Your task to perform on an android device: open app "Facebook Lite" (install if not already installed), go to login, and select forgot password Image 0: 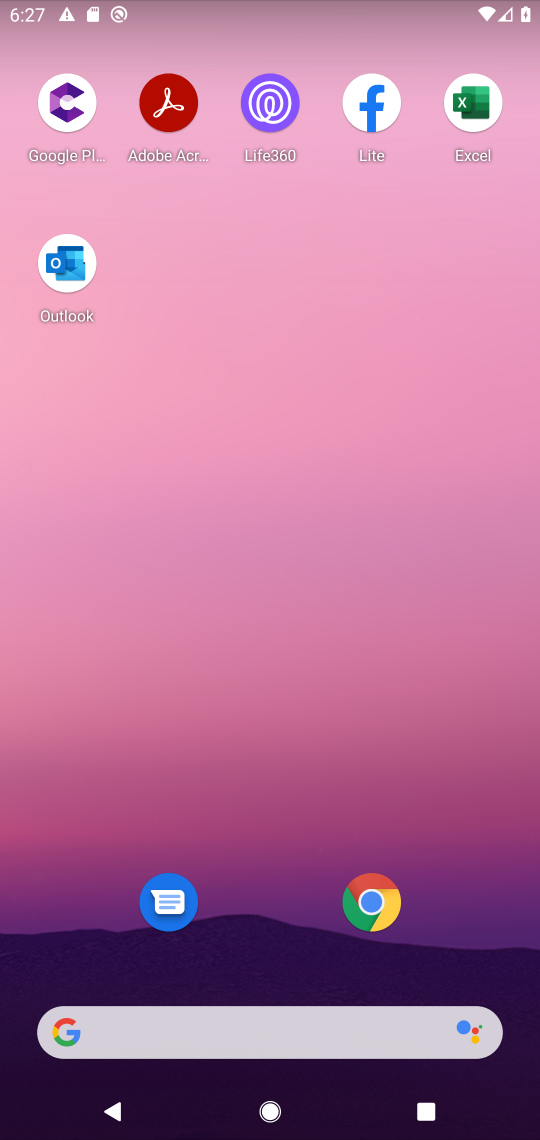
Step 0: click (247, 976)
Your task to perform on an android device: open app "Facebook Lite" (install if not already installed), go to login, and select forgot password Image 1: 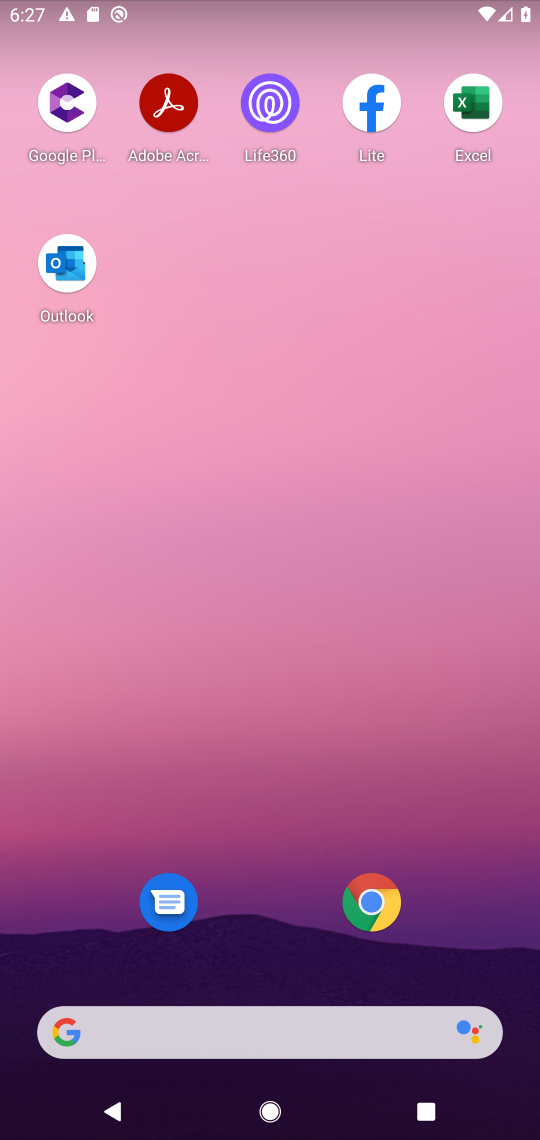
Step 1: drag from (244, 940) to (310, 29)
Your task to perform on an android device: open app "Facebook Lite" (install if not already installed), go to login, and select forgot password Image 2: 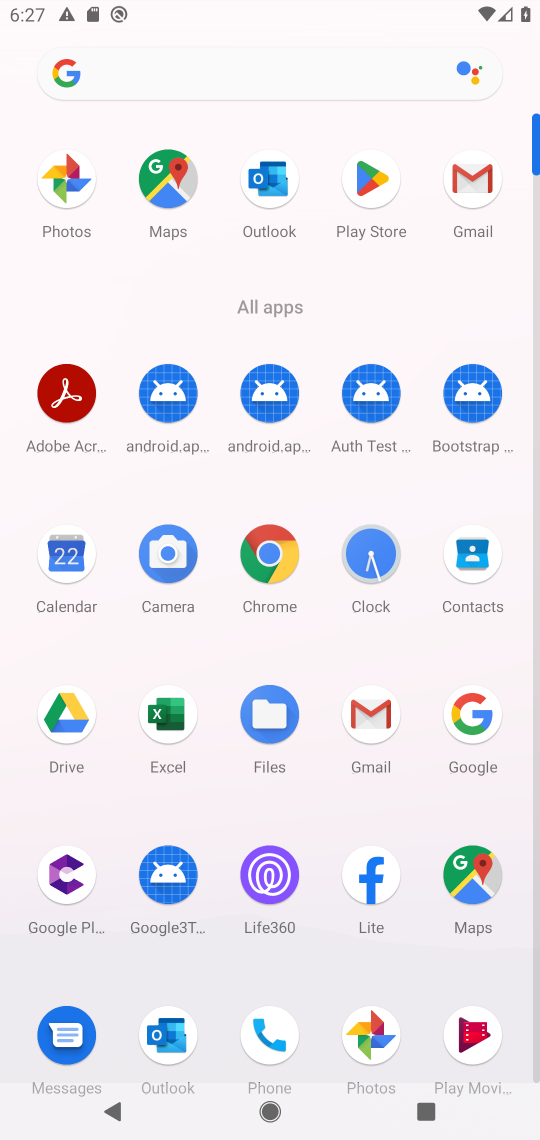
Step 2: click (378, 170)
Your task to perform on an android device: open app "Facebook Lite" (install if not already installed), go to login, and select forgot password Image 3: 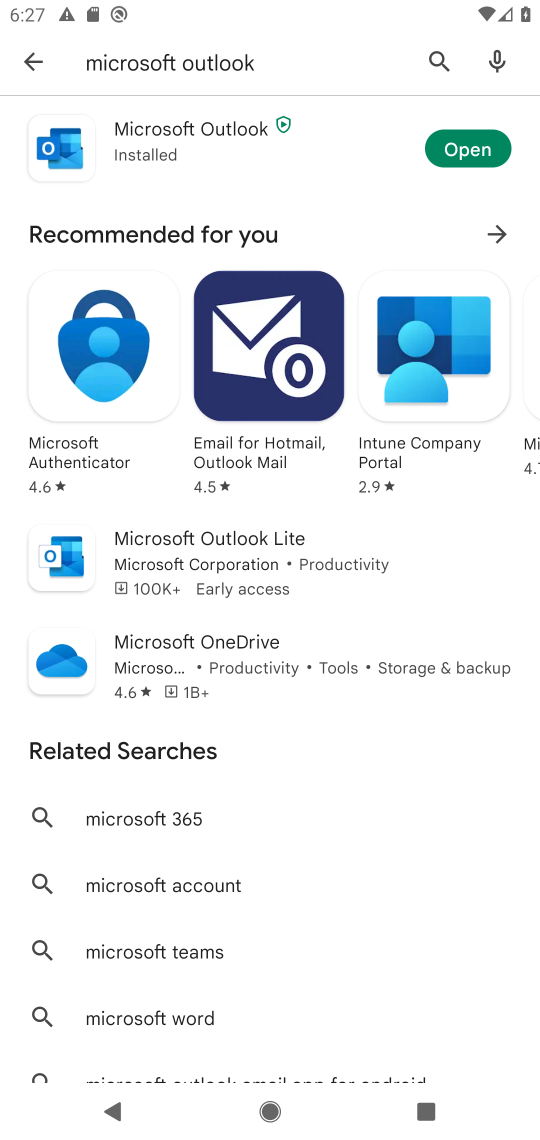
Step 3: click (34, 56)
Your task to perform on an android device: open app "Facebook Lite" (install if not already installed), go to login, and select forgot password Image 4: 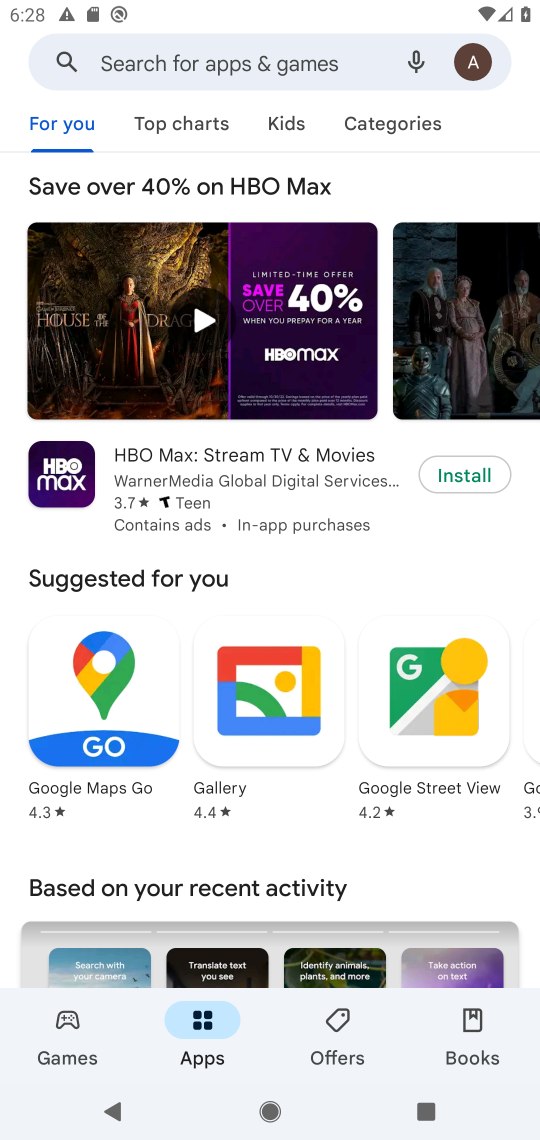
Step 4: click (222, 65)
Your task to perform on an android device: open app "Facebook Lite" (install if not already installed), go to login, and select forgot password Image 5: 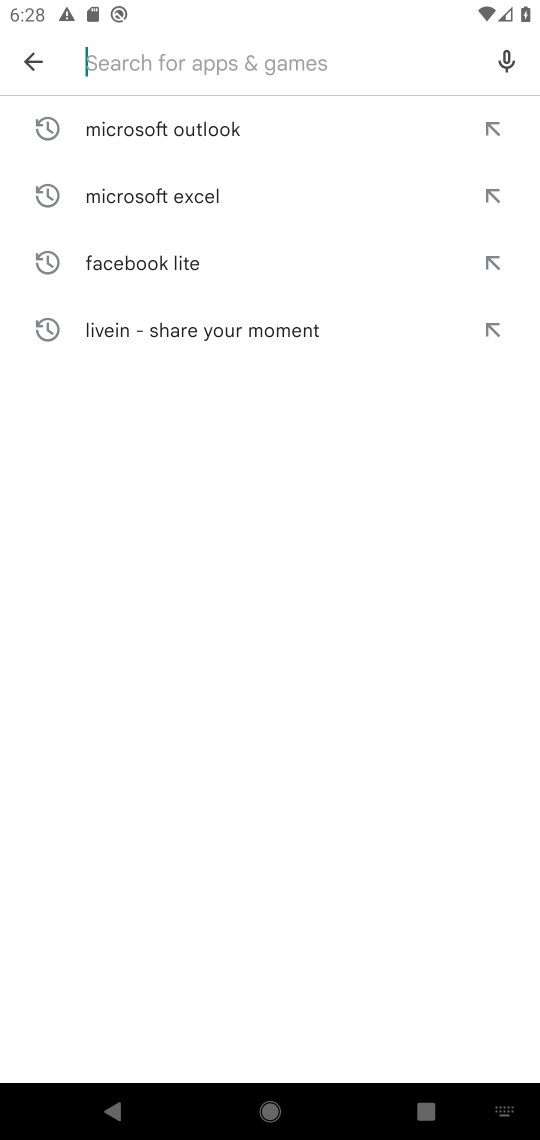
Step 5: type "Facebook Lite"
Your task to perform on an android device: open app "Facebook Lite" (install if not already installed), go to login, and select forgot password Image 6: 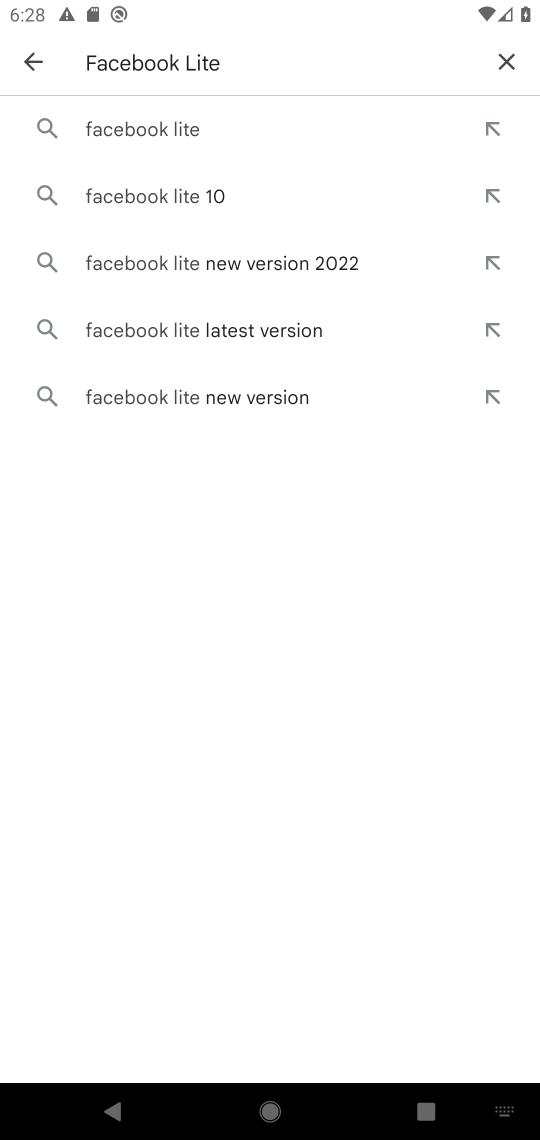
Step 6: click (166, 136)
Your task to perform on an android device: open app "Facebook Lite" (install if not already installed), go to login, and select forgot password Image 7: 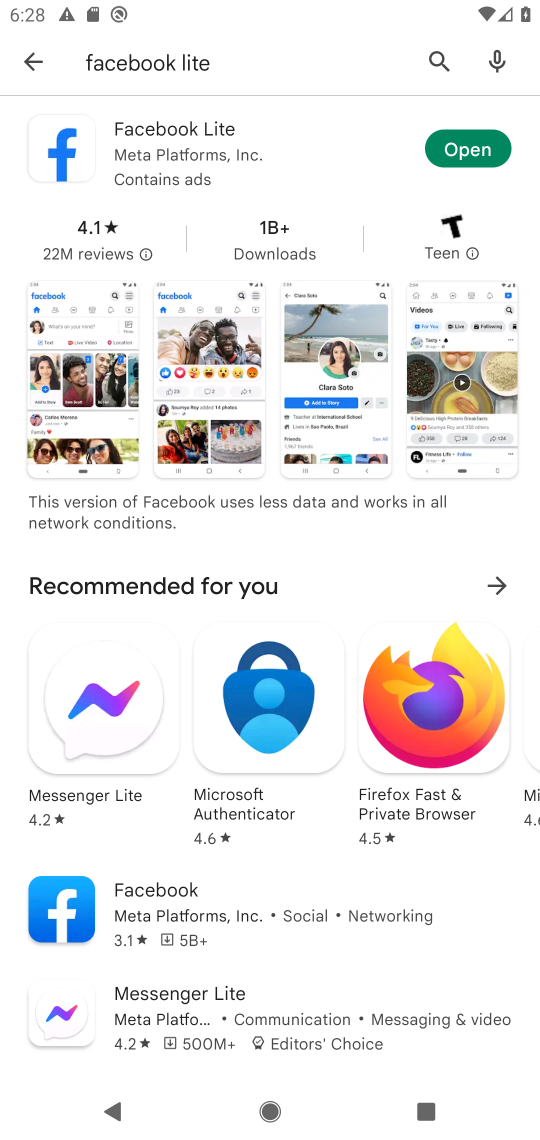
Step 7: click (467, 153)
Your task to perform on an android device: open app "Facebook Lite" (install if not already installed), go to login, and select forgot password Image 8: 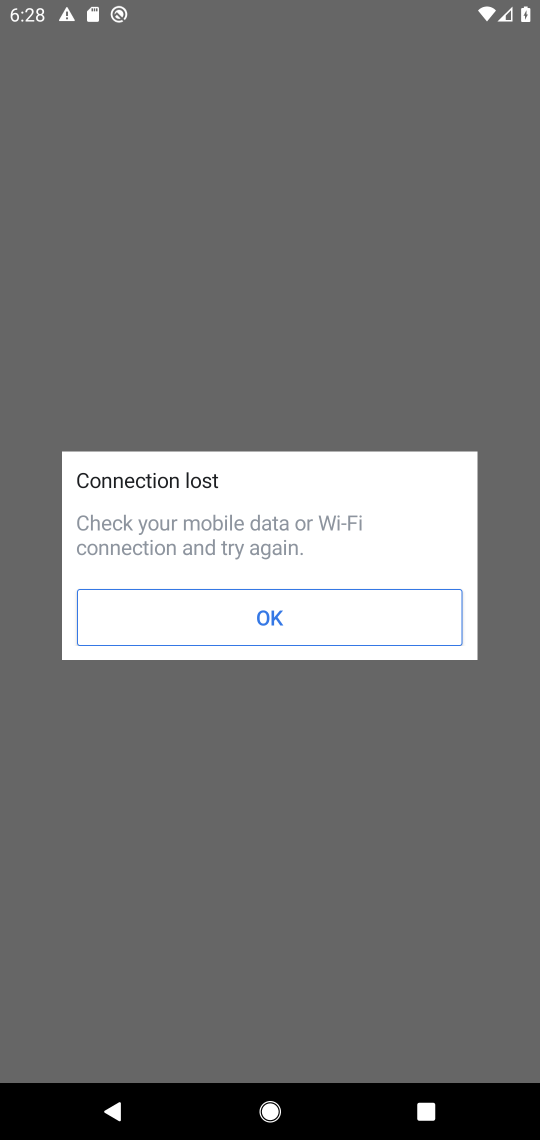
Step 8: task complete